Your task to perform on an android device: Who is the prime minister of the United Kingdom? Image 0: 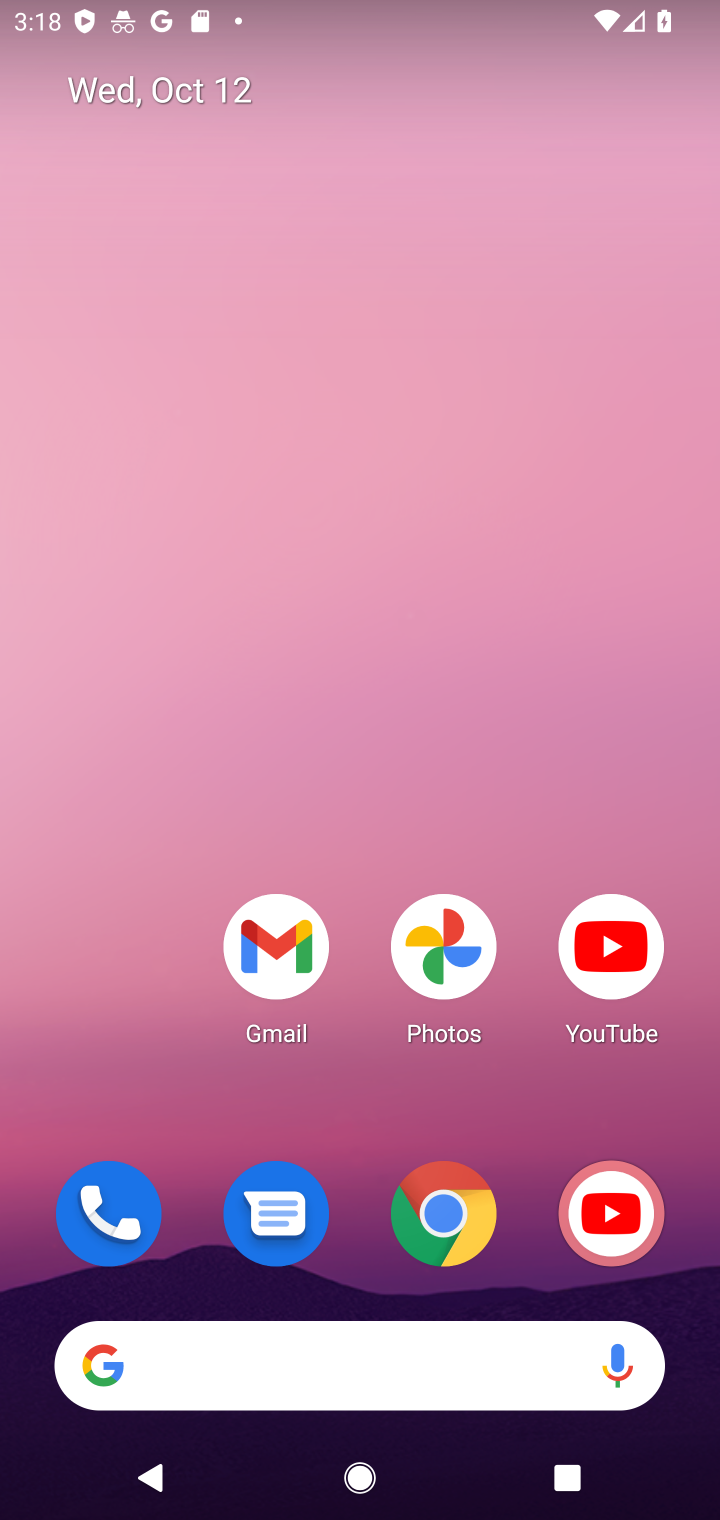
Step 0: click (212, 1388)
Your task to perform on an android device: Who is the prime minister of the United Kingdom? Image 1: 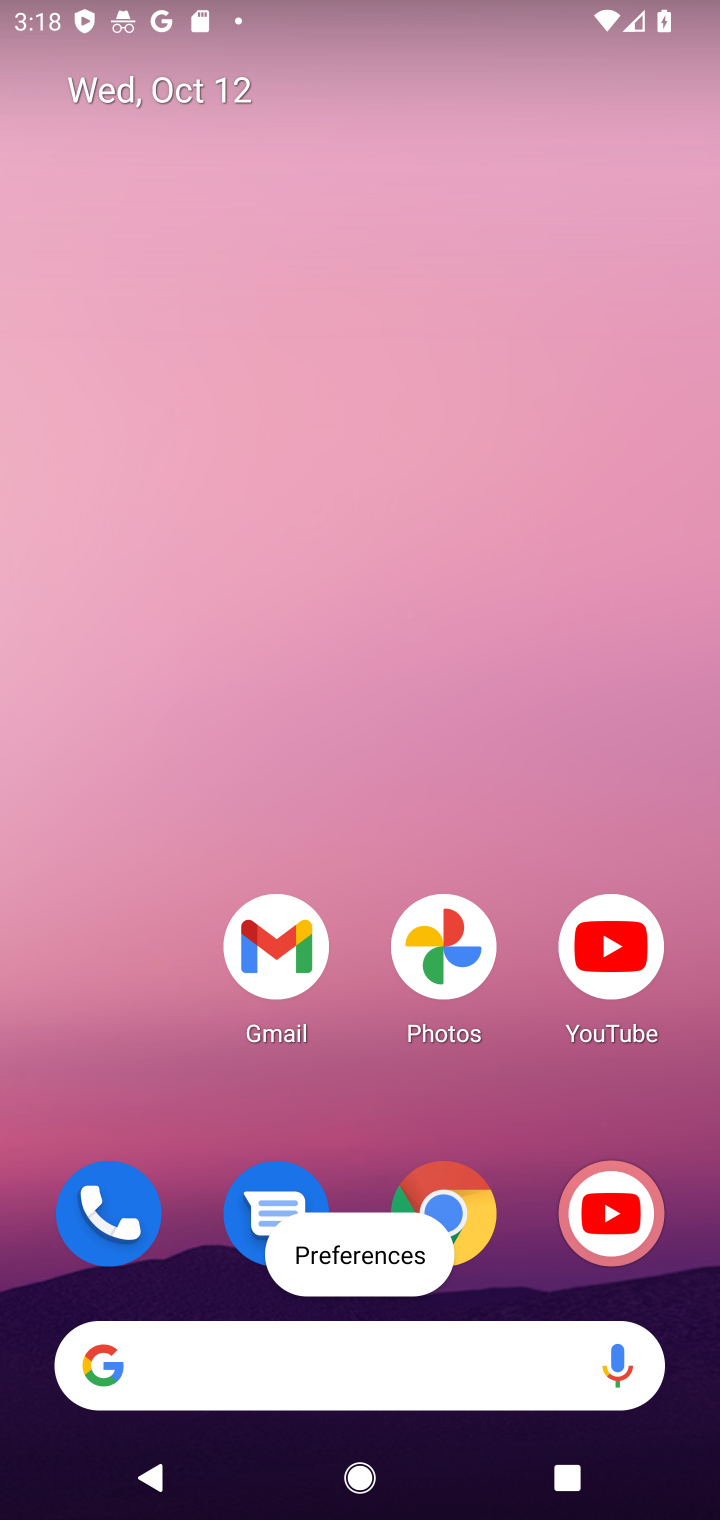
Step 1: click (233, 1362)
Your task to perform on an android device: Who is the prime minister of the United Kingdom? Image 2: 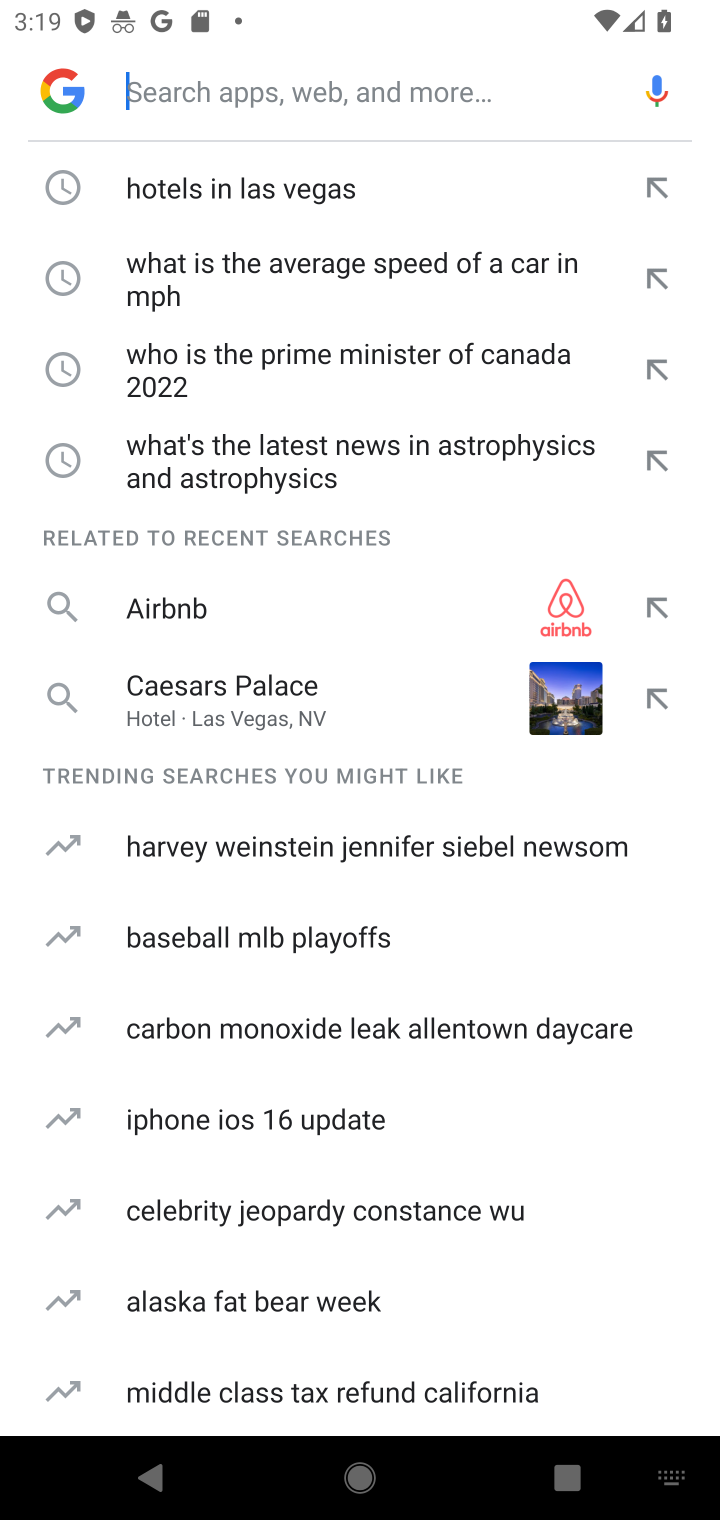
Step 2: click (200, 94)
Your task to perform on an android device: Who is the prime minister of the United Kingdom? Image 3: 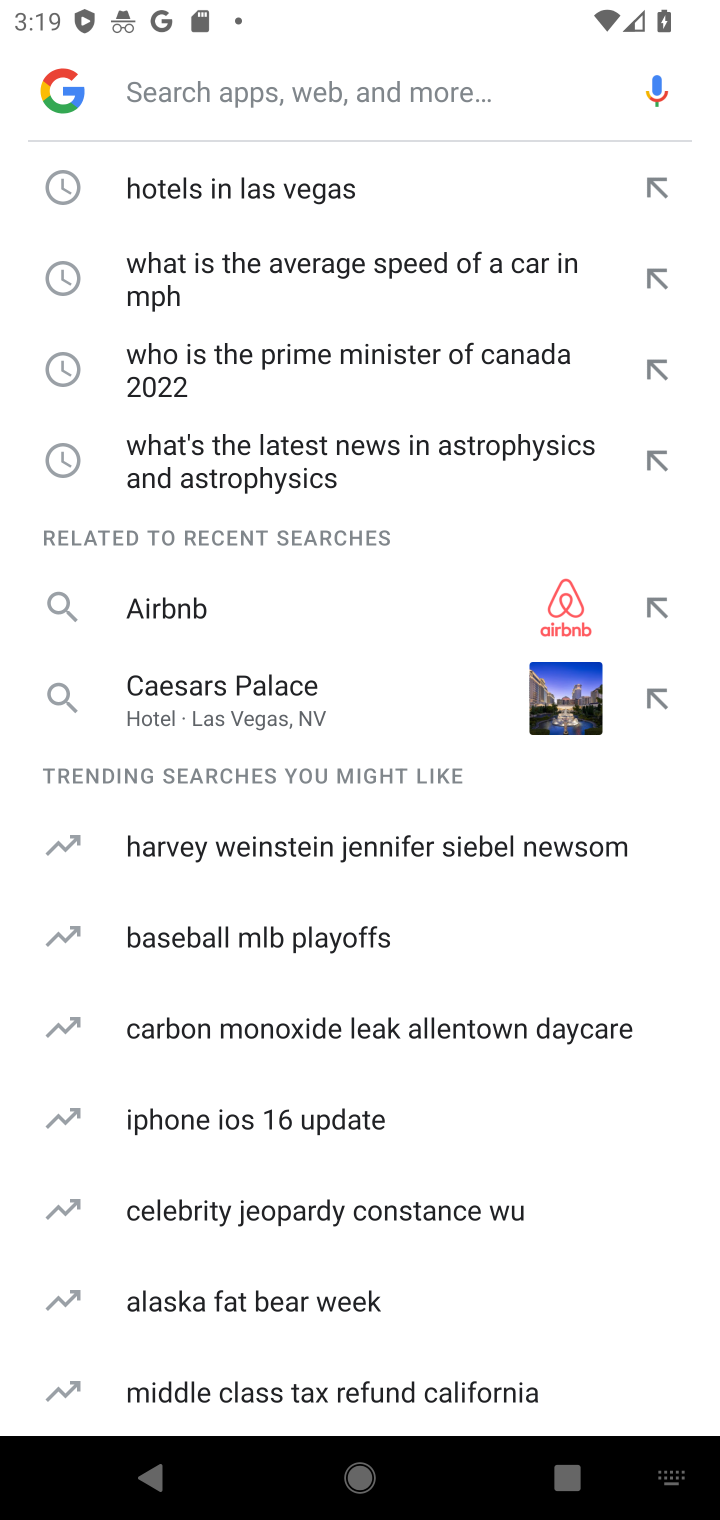
Step 3: type "Who is the prime minister of the United Kingdom?"
Your task to perform on an android device: Who is the prime minister of the United Kingdom? Image 4: 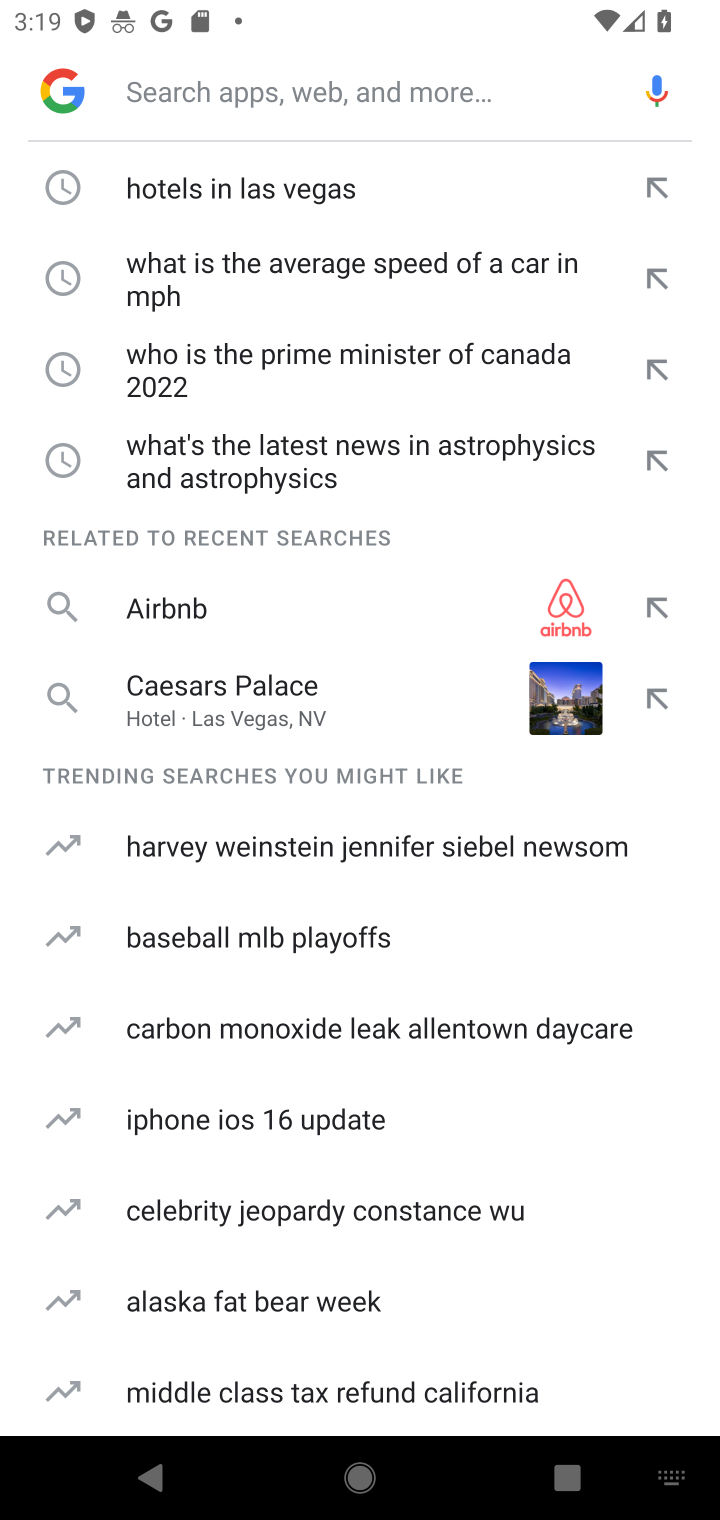
Step 4: click (217, 84)
Your task to perform on an android device: Who is the prime minister of the United Kingdom? Image 5: 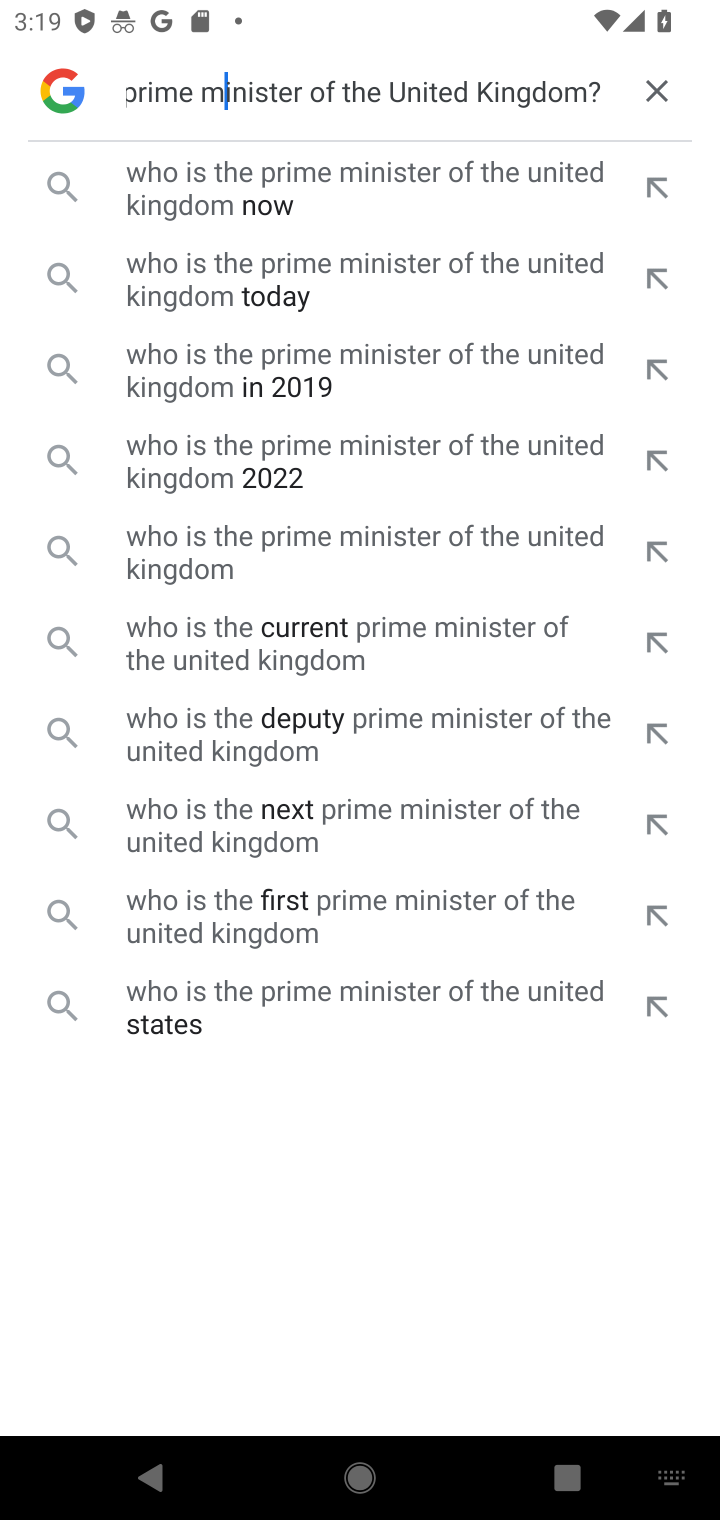
Step 5: type "Who is the prime minister of the United Kingdom?"
Your task to perform on an android device: Who is the prime minister of the United Kingdom? Image 6: 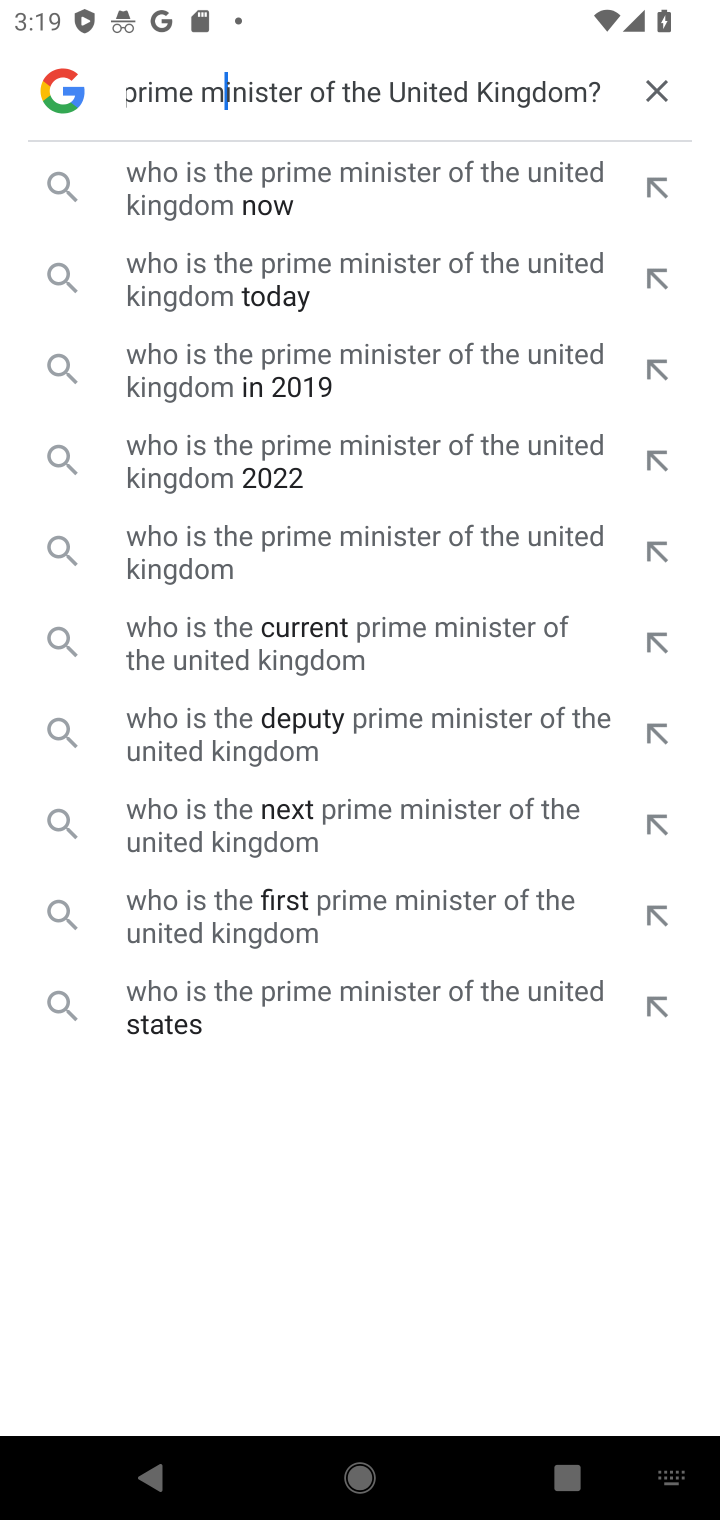
Step 6: drag from (457, 188) to (335, 177)
Your task to perform on an android device: Who is the prime minister of the United Kingdom? Image 7: 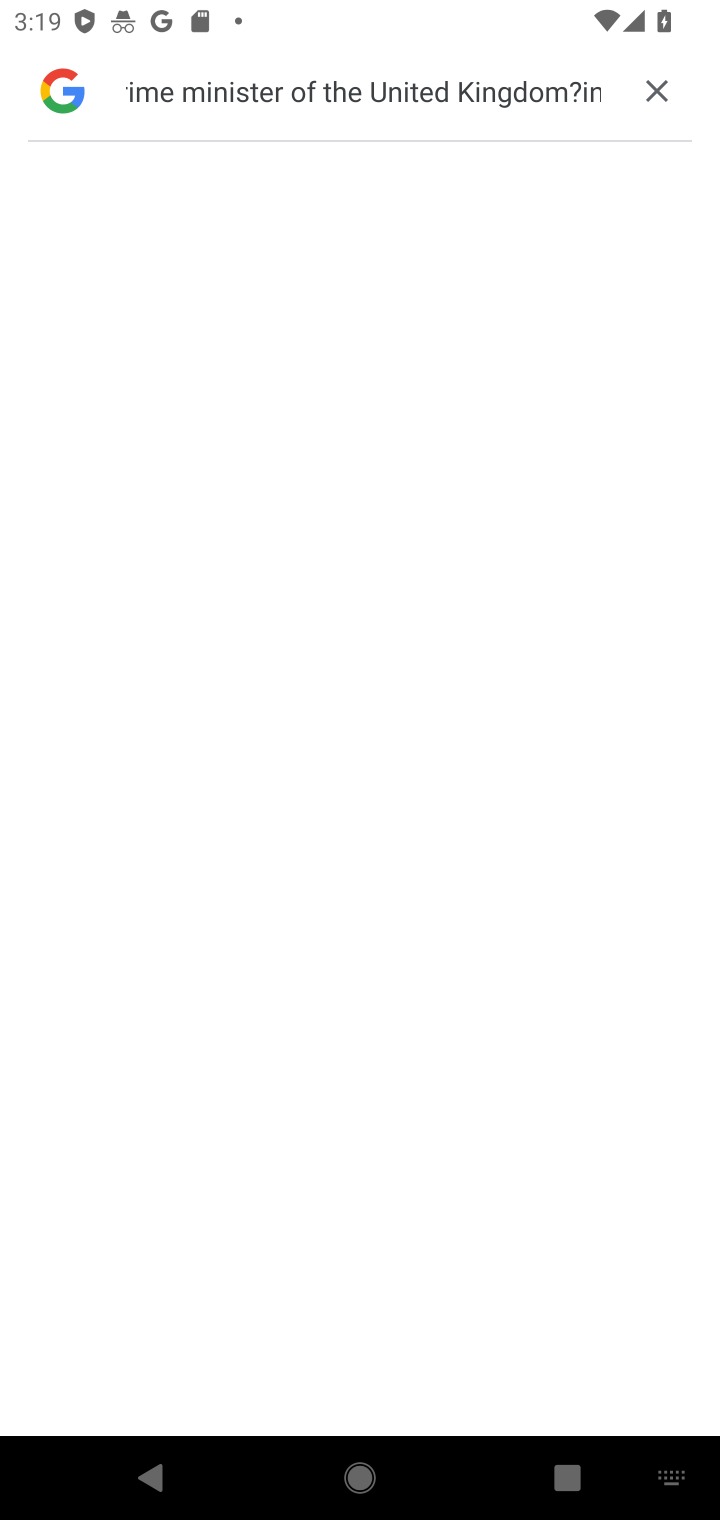
Step 7: click (656, 75)
Your task to perform on an android device: Who is the prime minister of the United Kingdom? Image 8: 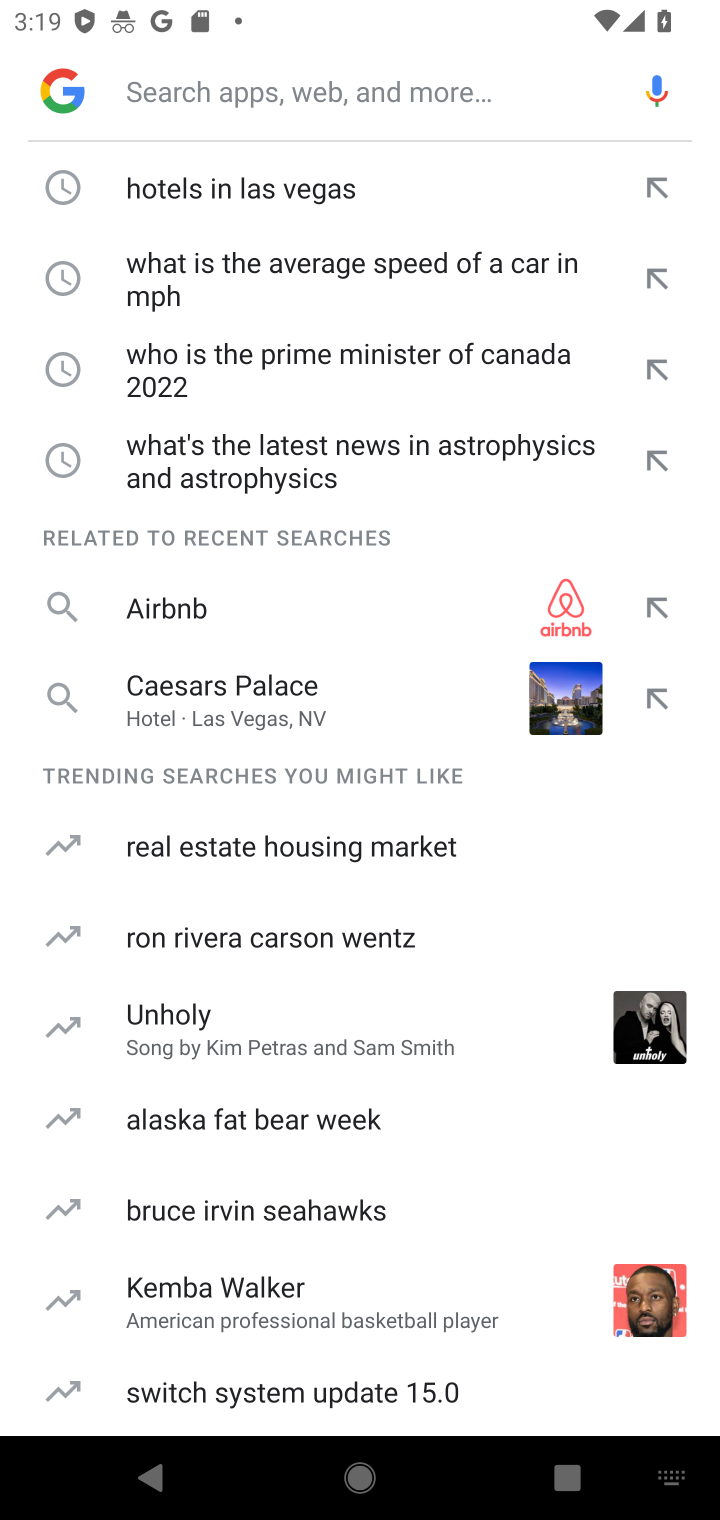
Step 8: click (211, 104)
Your task to perform on an android device: Who is the prime minister of the United Kingdom? Image 9: 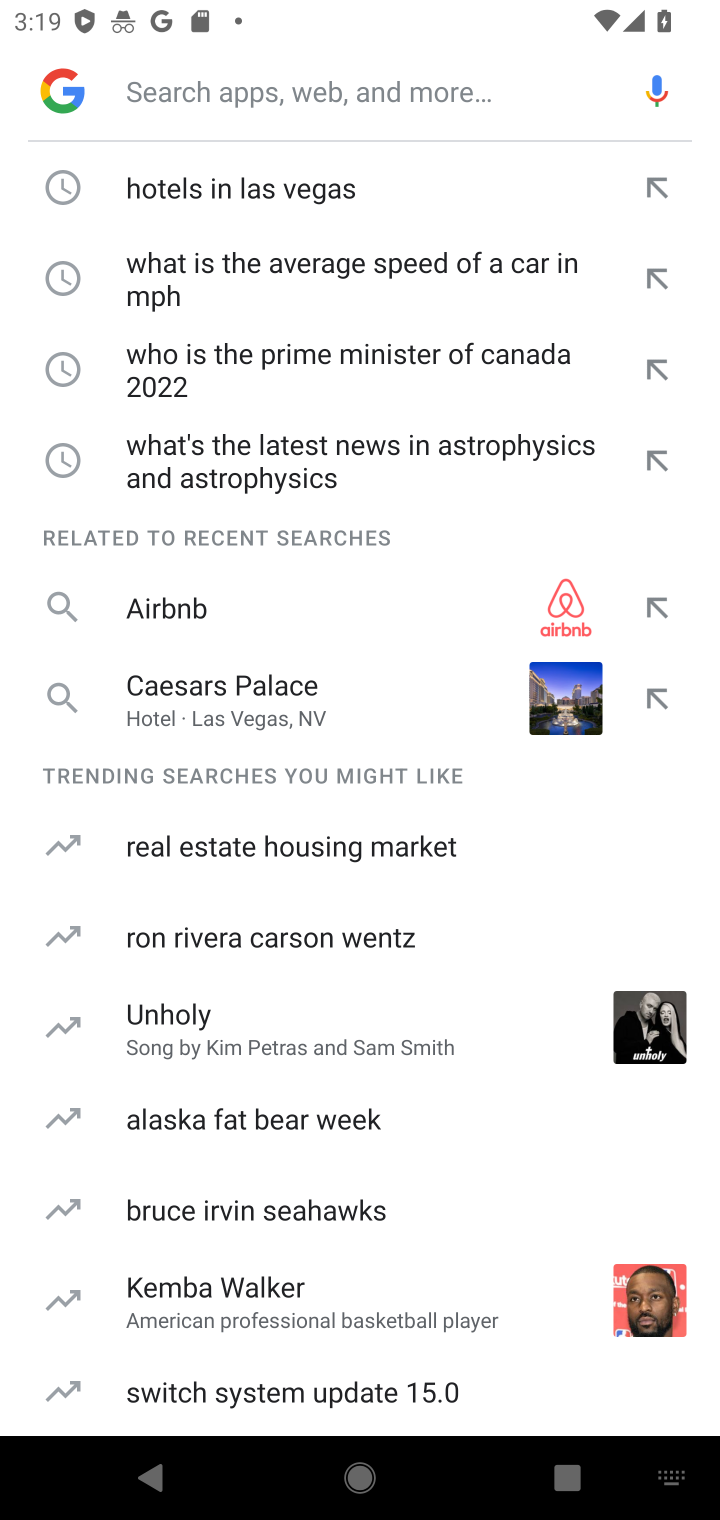
Step 9: type "Who is the prime minister of the United Kingdom?"
Your task to perform on an android device: Who is the prime minister of the United Kingdom? Image 10: 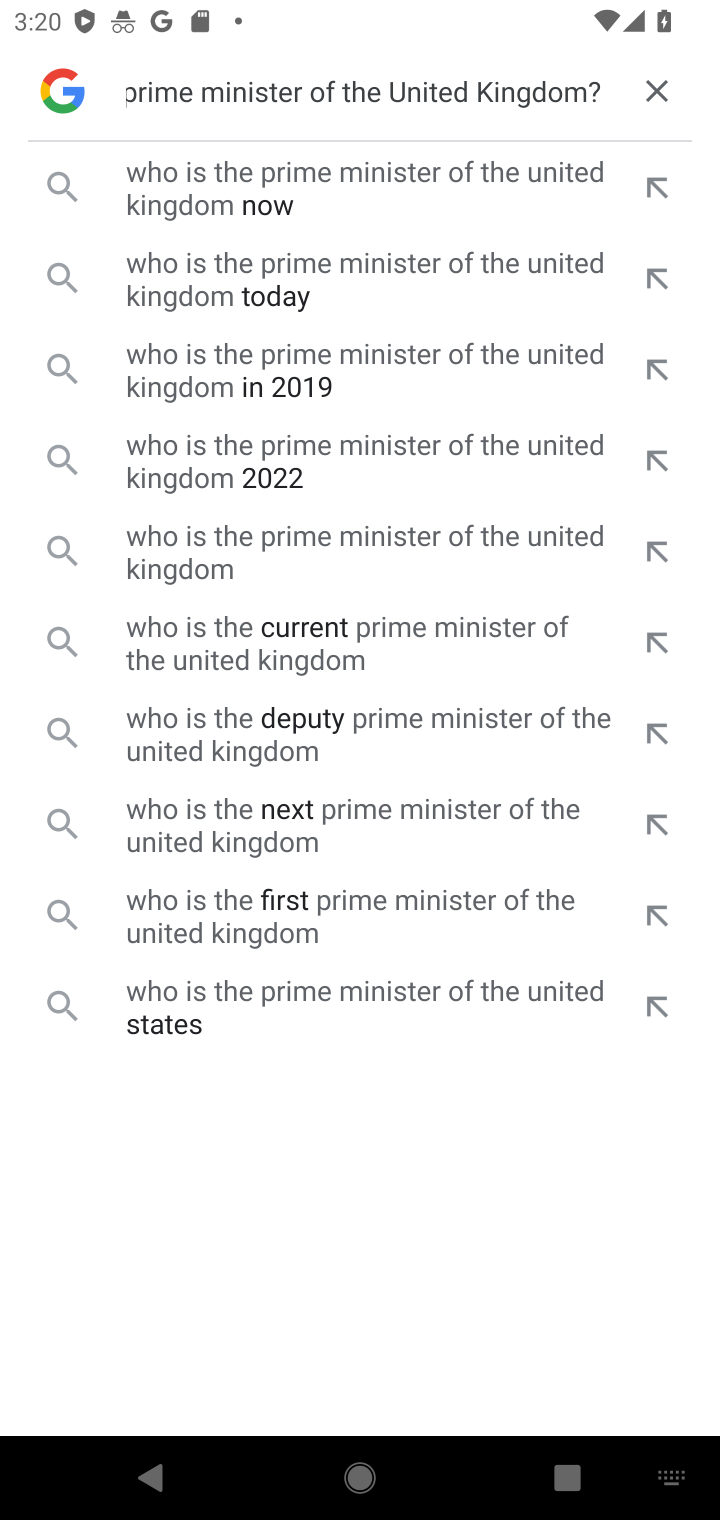
Step 10: click (215, 198)
Your task to perform on an android device: Who is the prime minister of the United Kingdom? Image 11: 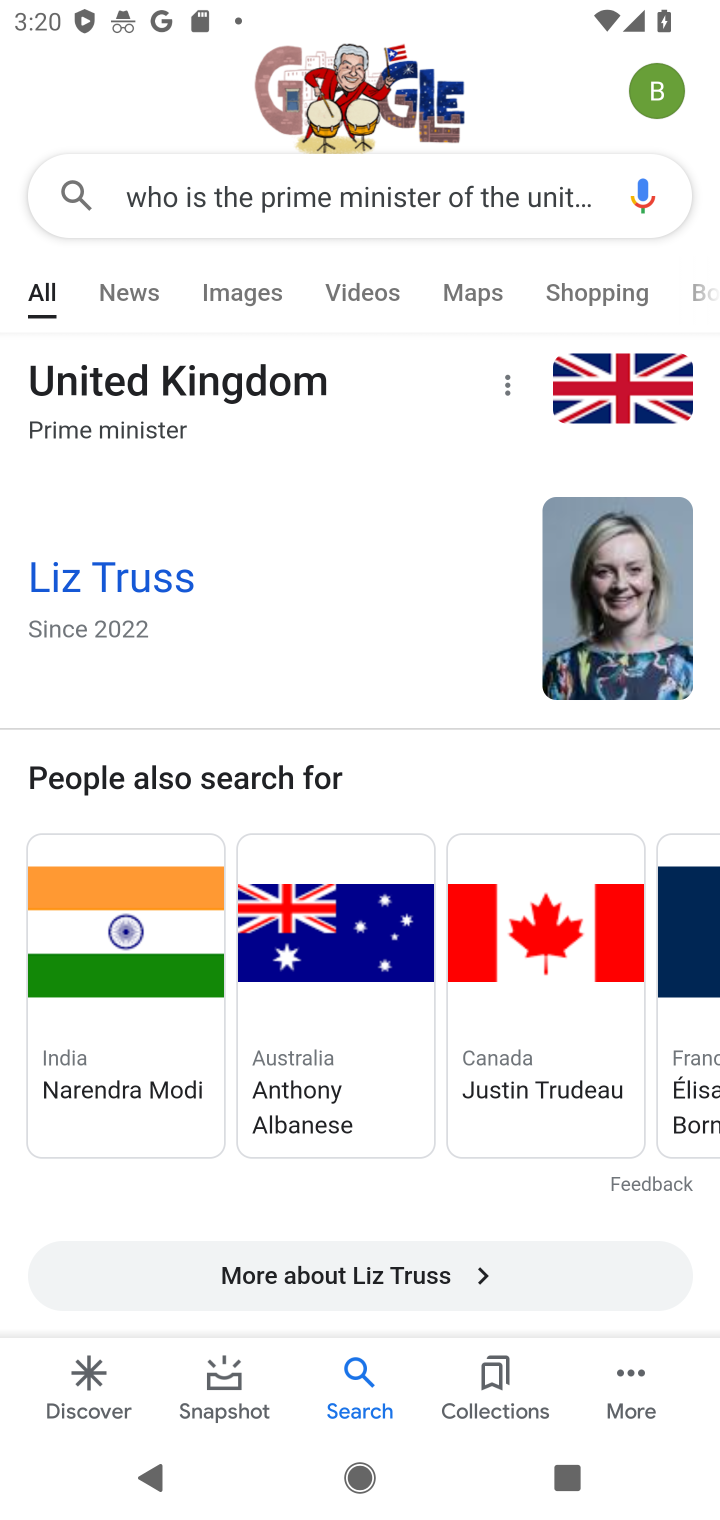
Step 11: task complete